Your task to perform on an android device: delete the emails in spam in the gmail app Image 0: 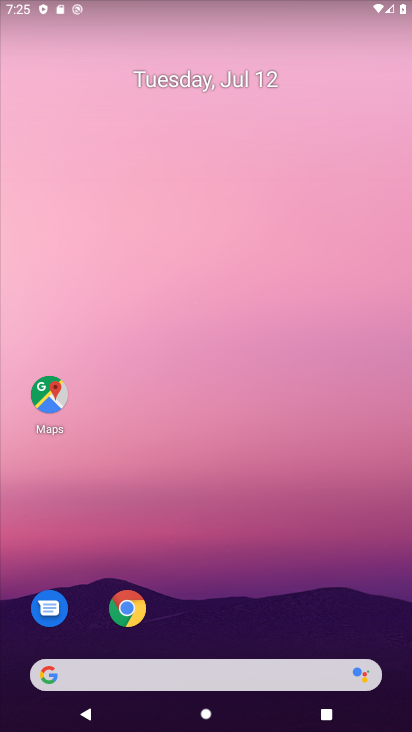
Step 0: drag from (157, 684) to (303, 407)
Your task to perform on an android device: delete the emails in spam in the gmail app Image 1: 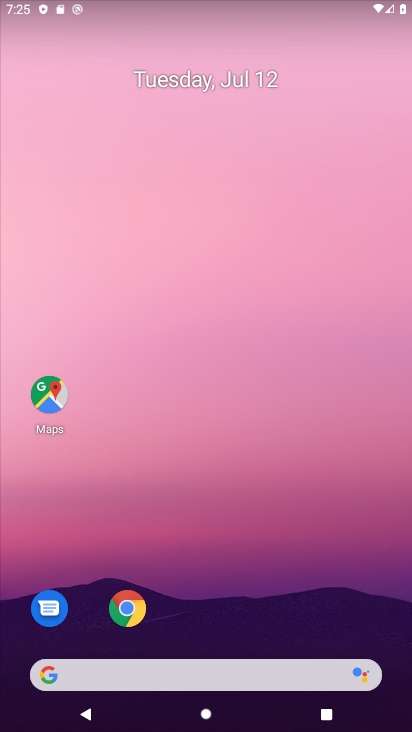
Step 1: drag from (169, 680) to (401, 191)
Your task to perform on an android device: delete the emails in spam in the gmail app Image 2: 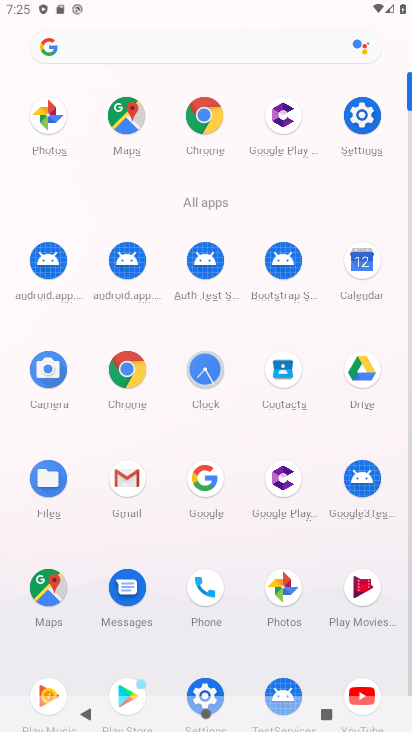
Step 2: click (129, 482)
Your task to perform on an android device: delete the emails in spam in the gmail app Image 3: 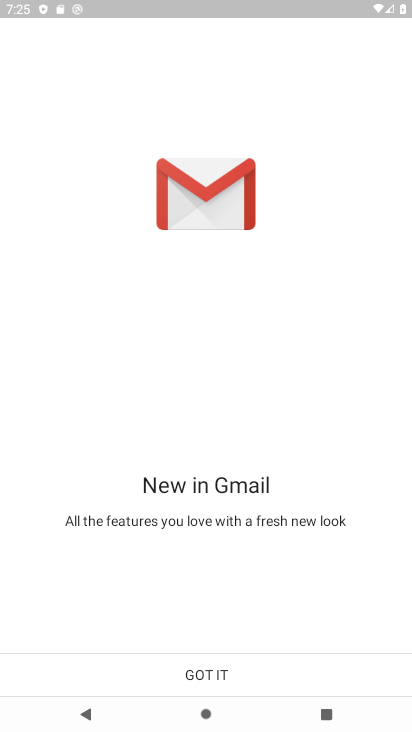
Step 3: click (214, 677)
Your task to perform on an android device: delete the emails in spam in the gmail app Image 4: 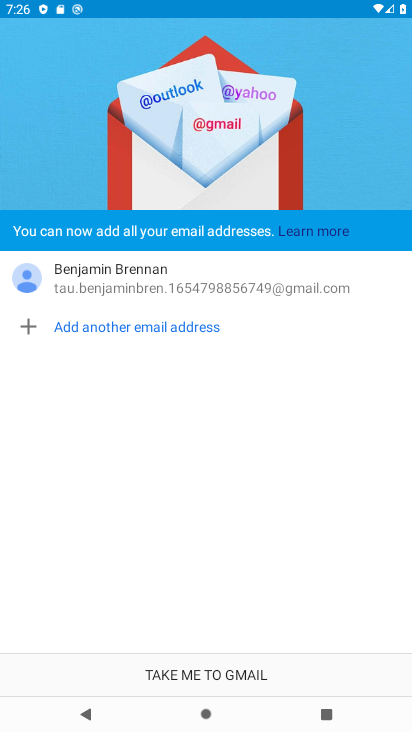
Step 4: click (202, 669)
Your task to perform on an android device: delete the emails in spam in the gmail app Image 5: 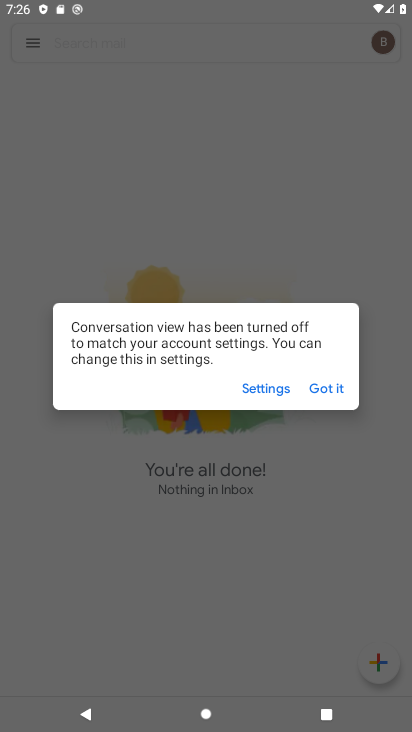
Step 5: click (334, 385)
Your task to perform on an android device: delete the emails in spam in the gmail app Image 6: 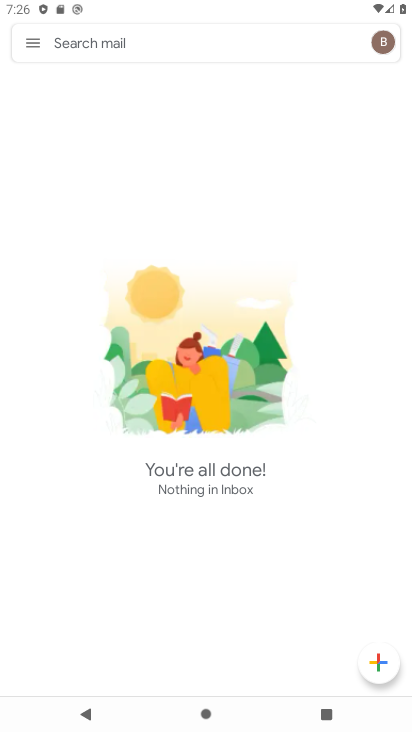
Step 6: click (34, 43)
Your task to perform on an android device: delete the emails in spam in the gmail app Image 7: 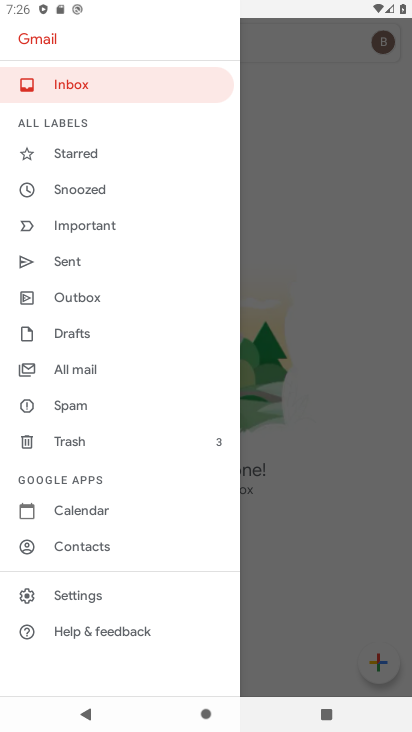
Step 7: click (66, 401)
Your task to perform on an android device: delete the emails in spam in the gmail app Image 8: 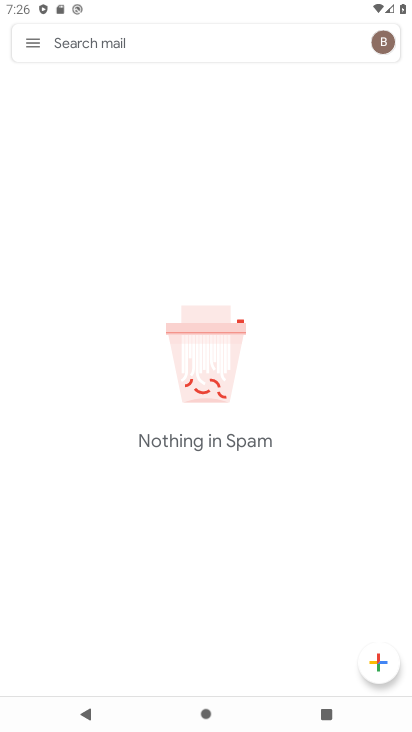
Step 8: task complete